Your task to perform on an android device: Open Chrome and go to settings Image 0: 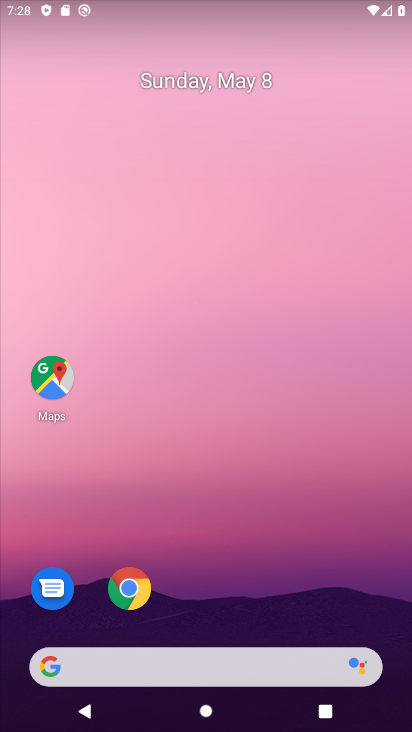
Step 0: drag from (199, 679) to (367, 137)
Your task to perform on an android device: Open Chrome and go to settings Image 1: 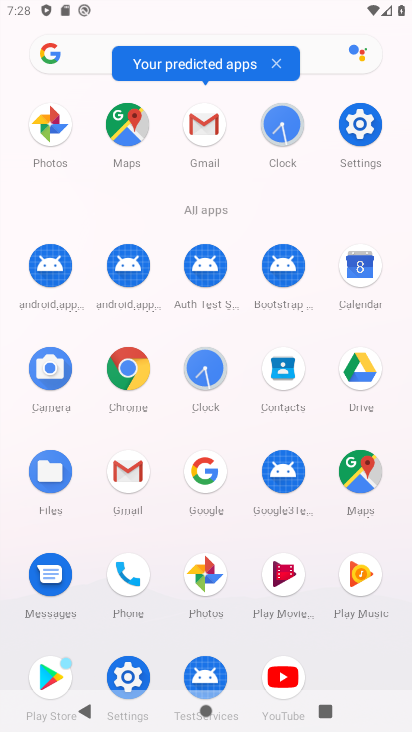
Step 1: click (134, 381)
Your task to perform on an android device: Open Chrome and go to settings Image 2: 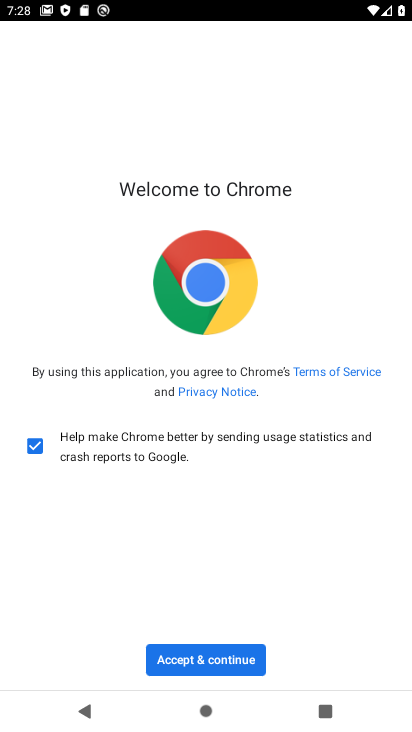
Step 2: click (211, 659)
Your task to perform on an android device: Open Chrome and go to settings Image 3: 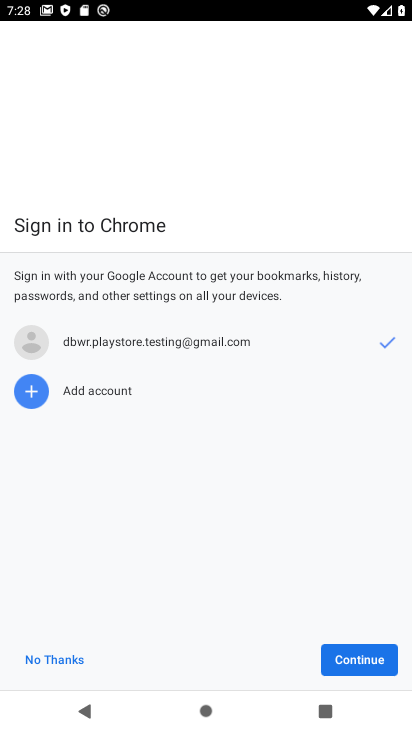
Step 3: click (362, 657)
Your task to perform on an android device: Open Chrome and go to settings Image 4: 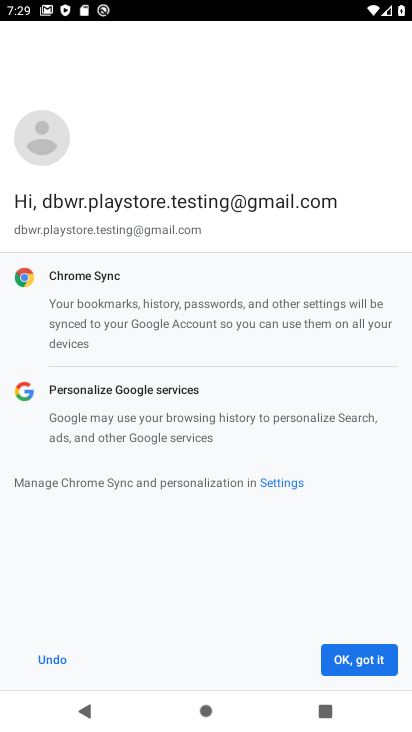
Step 4: click (362, 657)
Your task to perform on an android device: Open Chrome and go to settings Image 5: 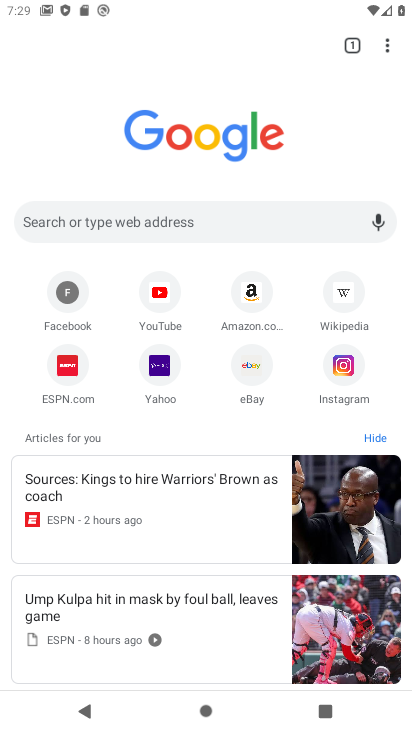
Step 5: drag from (384, 47) to (241, 391)
Your task to perform on an android device: Open Chrome and go to settings Image 6: 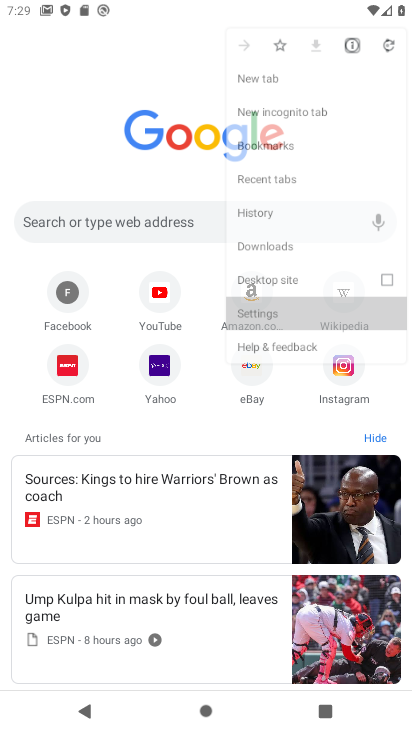
Step 6: click (241, 391)
Your task to perform on an android device: Open Chrome and go to settings Image 7: 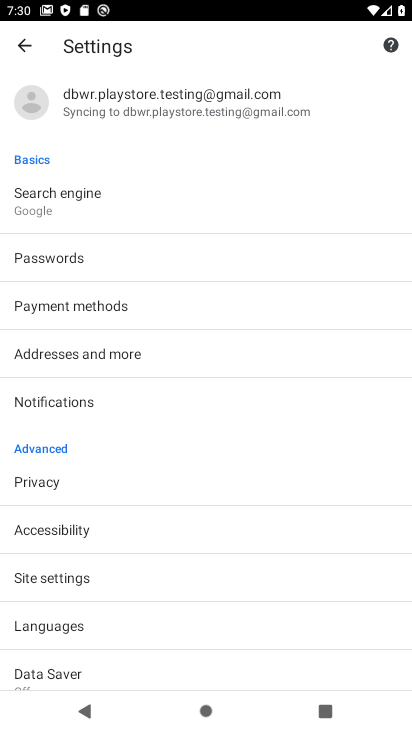
Step 7: task complete